Your task to perform on an android device: Go to display settings Image 0: 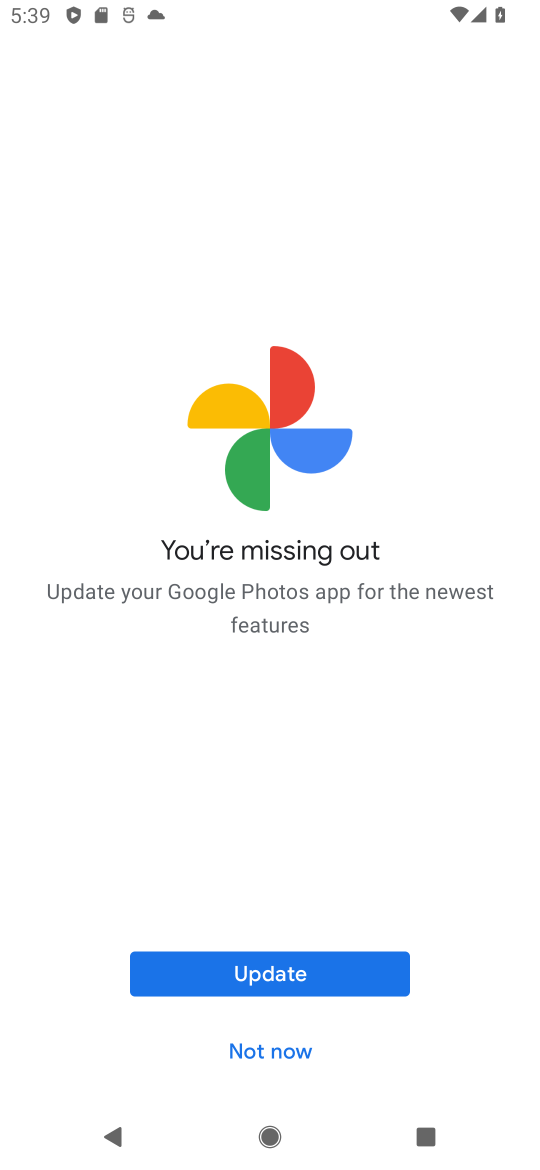
Step 0: press home button
Your task to perform on an android device: Go to display settings Image 1: 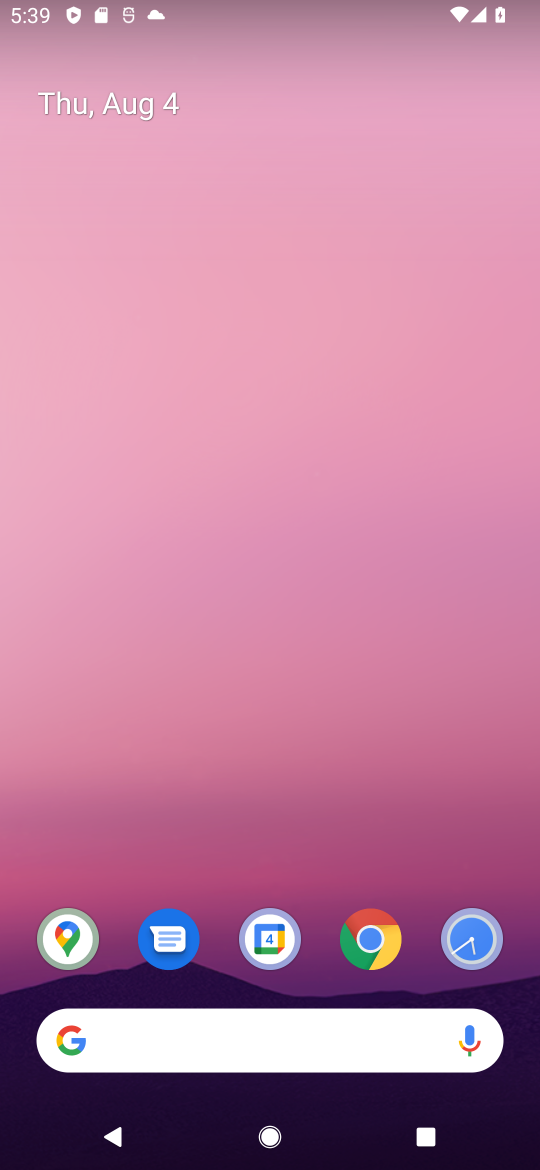
Step 1: drag from (239, 1029) to (302, 504)
Your task to perform on an android device: Go to display settings Image 2: 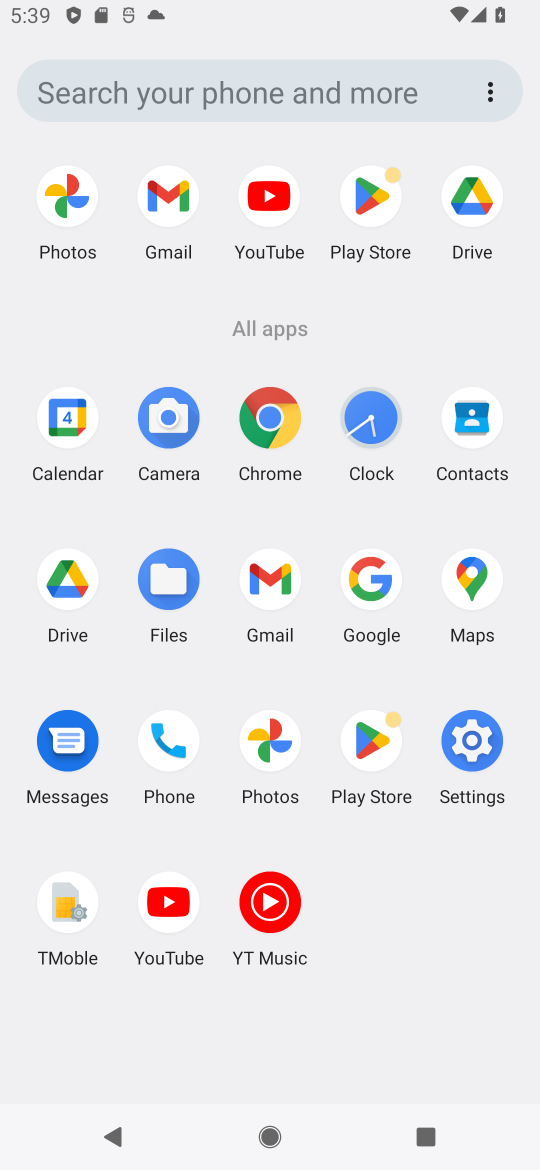
Step 2: click (469, 739)
Your task to perform on an android device: Go to display settings Image 3: 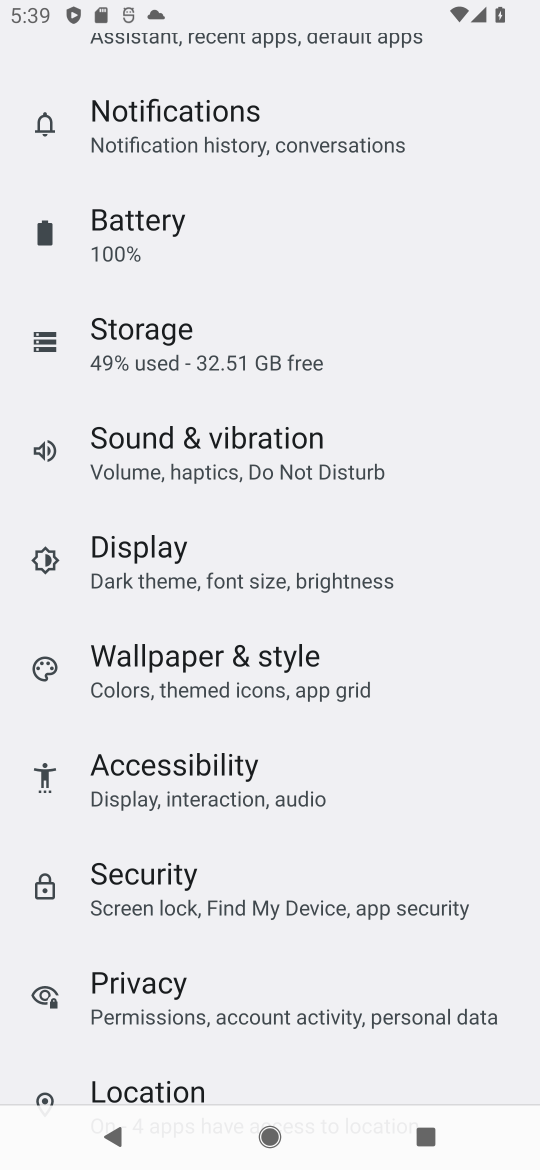
Step 3: drag from (143, 1050) to (143, 514)
Your task to perform on an android device: Go to display settings Image 4: 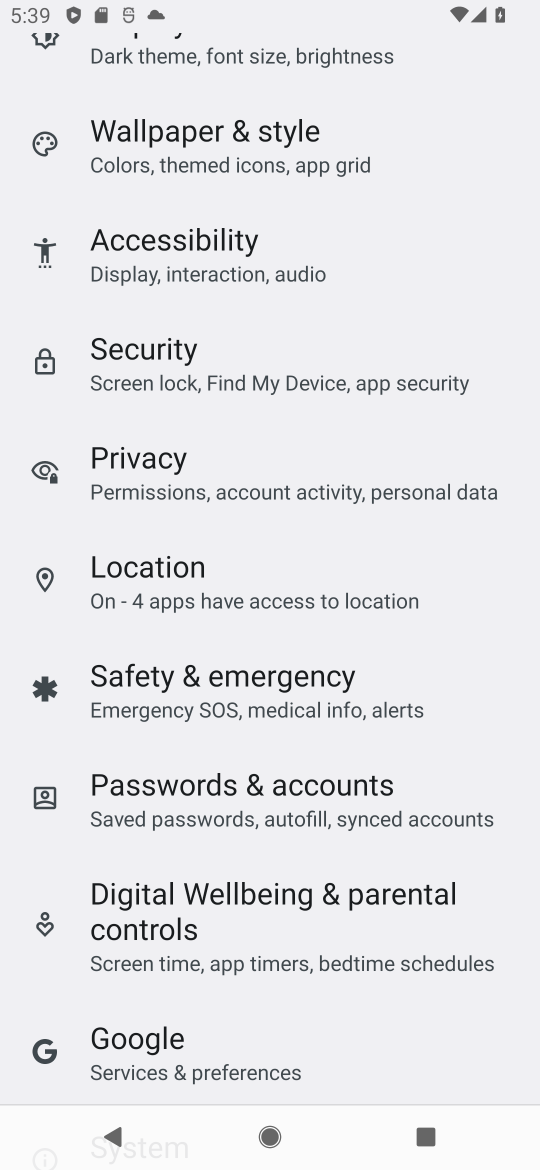
Step 4: drag from (146, 1051) to (183, 422)
Your task to perform on an android device: Go to display settings Image 5: 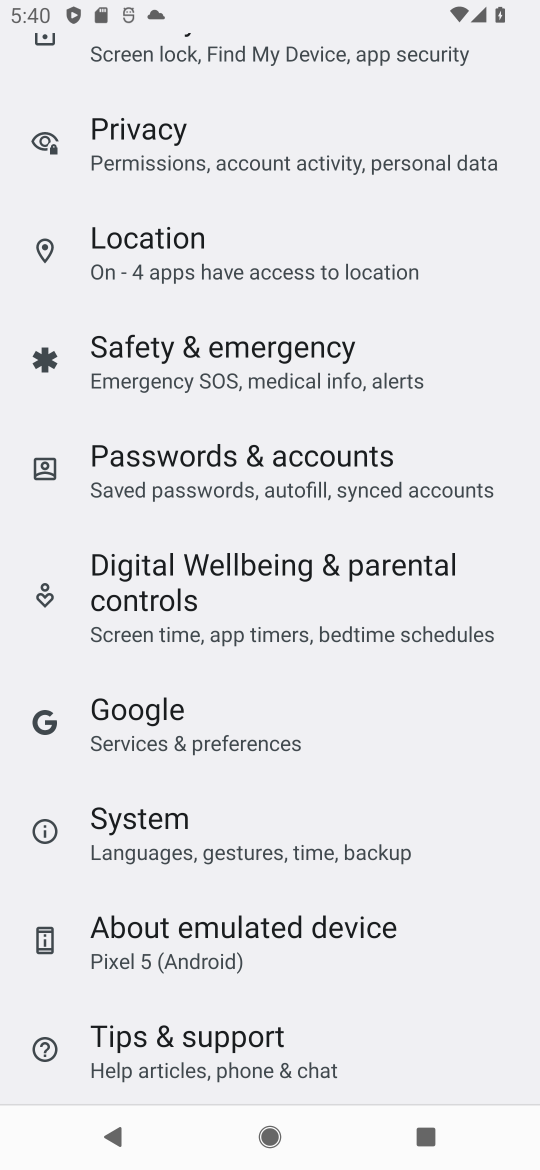
Step 5: drag from (149, 1067) to (169, 559)
Your task to perform on an android device: Go to display settings Image 6: 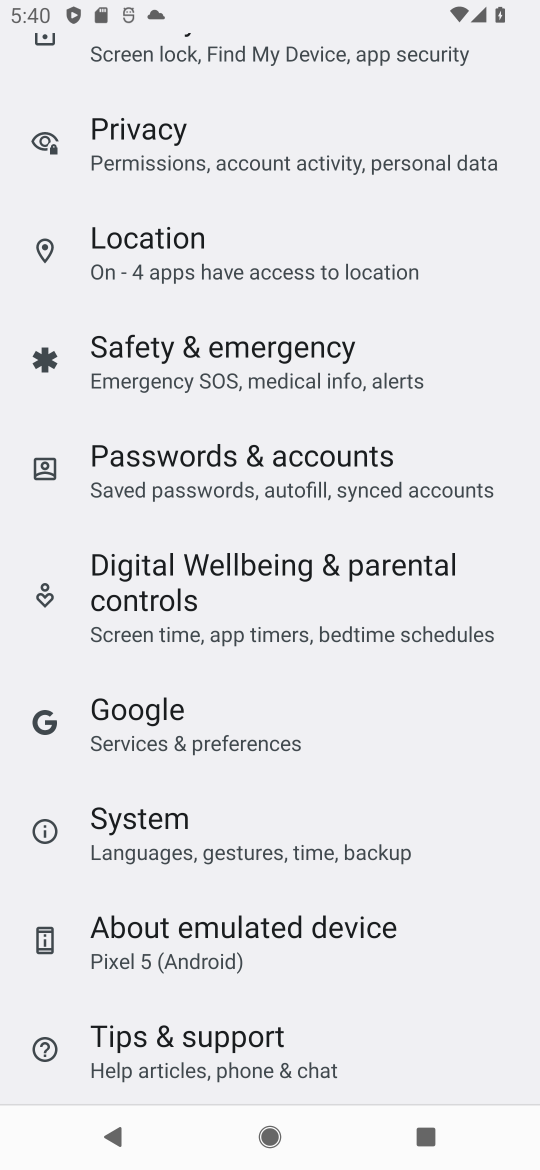
Step 6: drag from (227, 136) to (229, 863)
Your task to perform on an android device: Go to display settings Image 7: 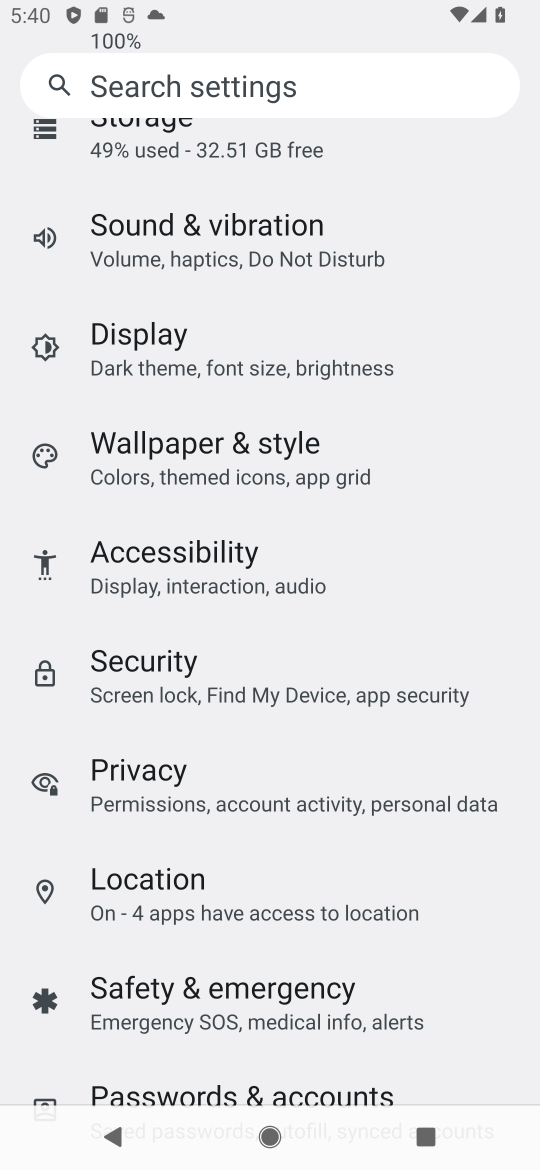
Step 7: drag from (160, 197) to (142, 685)
Your task to perform on an android device: Go to display settings Image 8: 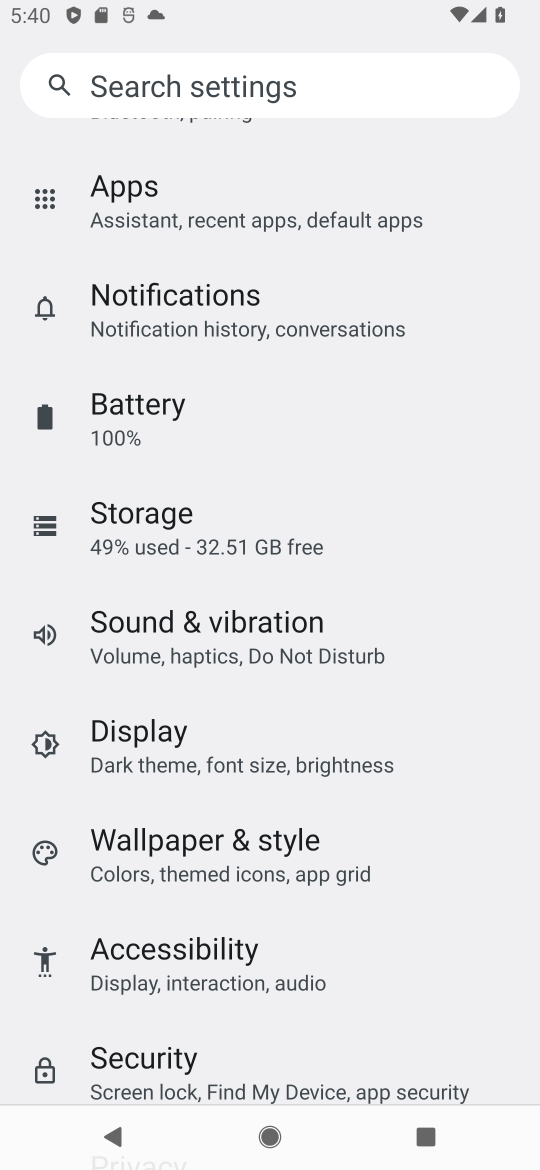
Step 8: click (122, 740)
Your task to perform on an android device: Go to display settings Image 9: 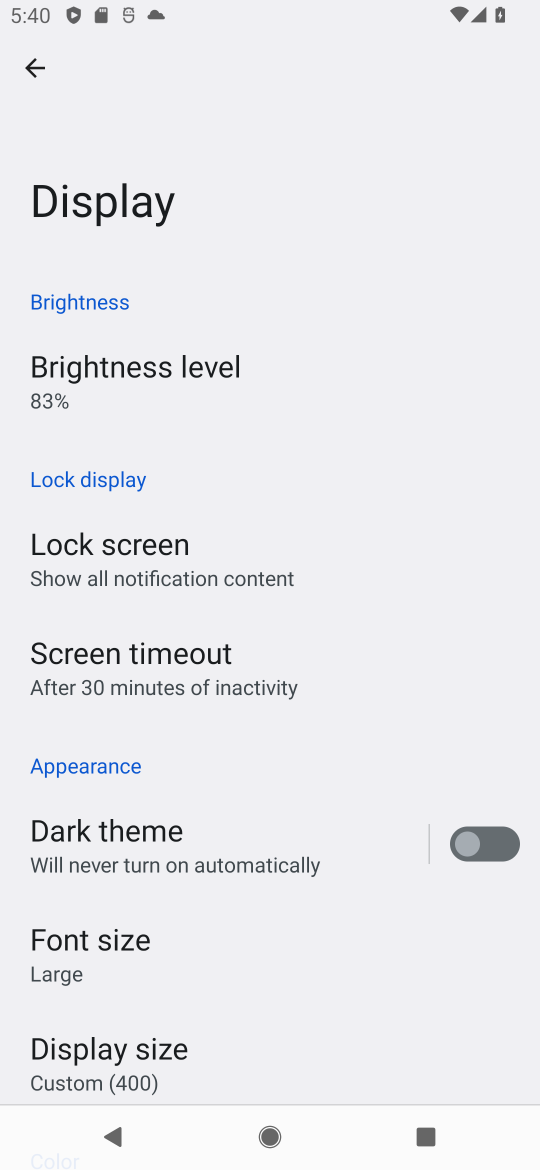
Step 9: task complete